Your task to perform on an android device: turn on airplane mode Image 0: 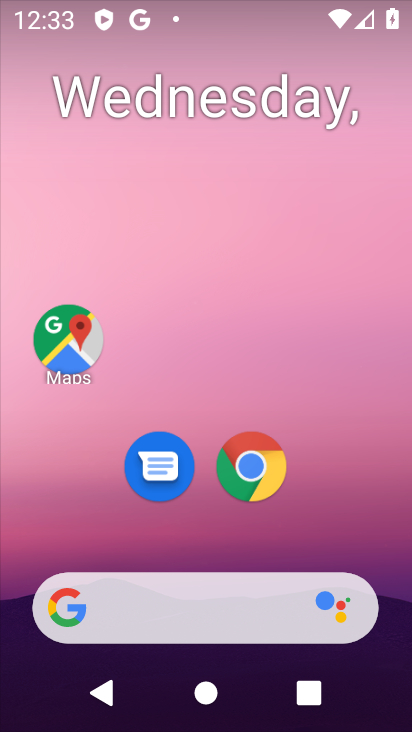
Step 0: drag from (331, 477) to (312, 7)
Your task to perform on an android device: turn on airplane mode Image 1: 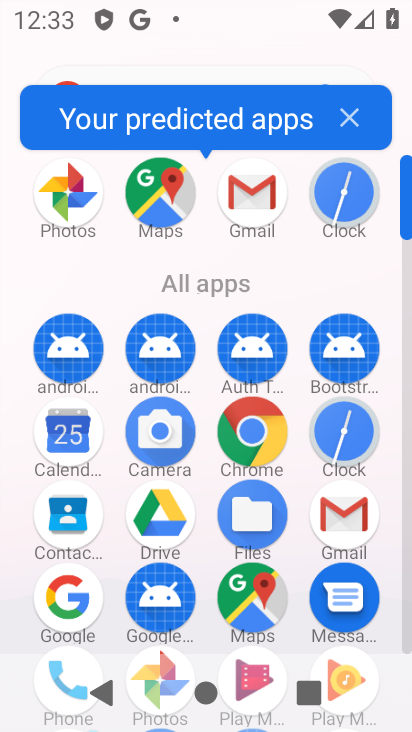
Step 1: drag from (92, 576) to (74, 143)
Your task to perform on an android device: turn on airplane mode Image 2: 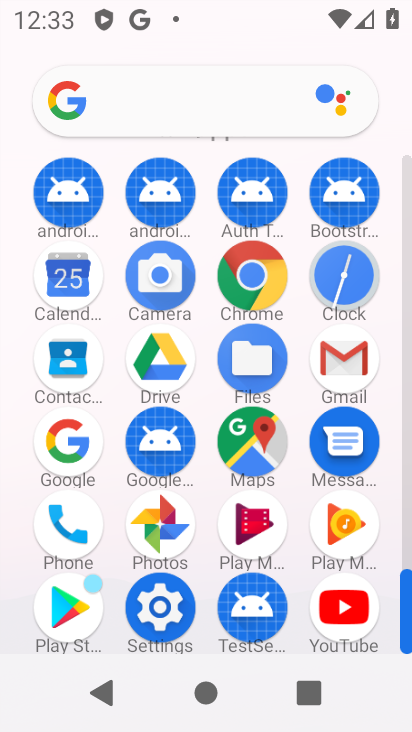
Step 2: click (178, 621)
Your task to perform on an android device: turn on airplane mode Image 3: 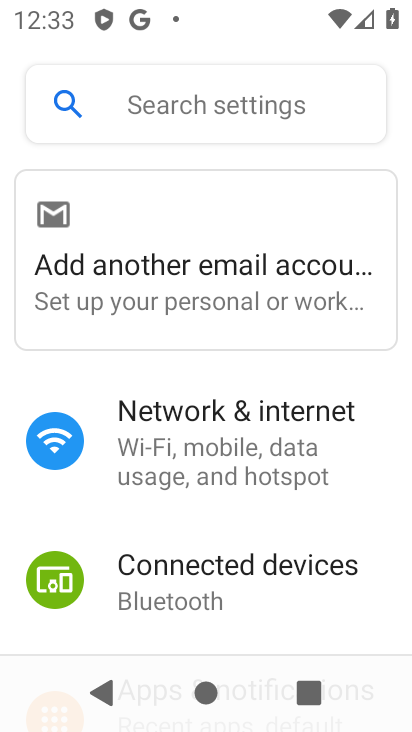
Step 3: click (206, 464)
Your task to perform on an android device: turn on airplane mode Image 4: 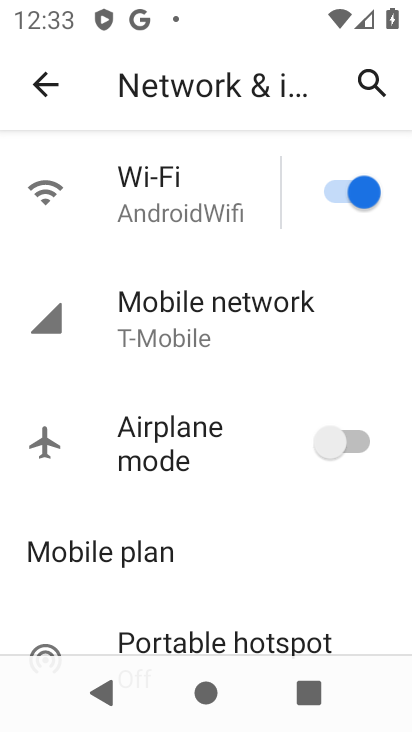
Step 4: click (326, 431)
Your task to perform on an android device: turn on airplane mode Image 5: 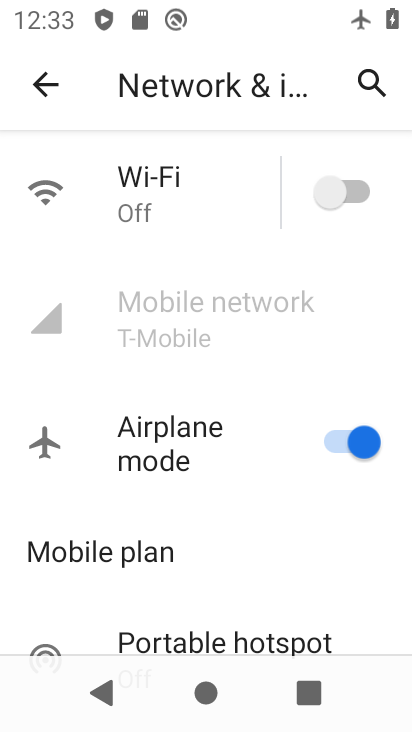
Step 5: task complete